Your task to perform on an android device: change alarm snooze length Image 0: 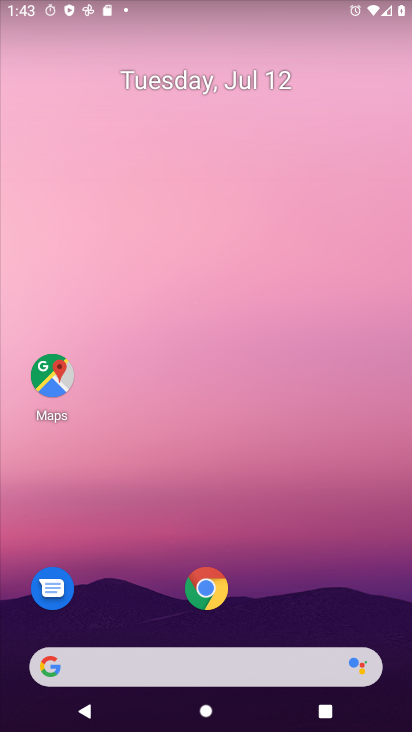
Step 0: drag from (165, 668) to (294, 142)
Your task to perform on an android device: change alarm snooze length Image 1: 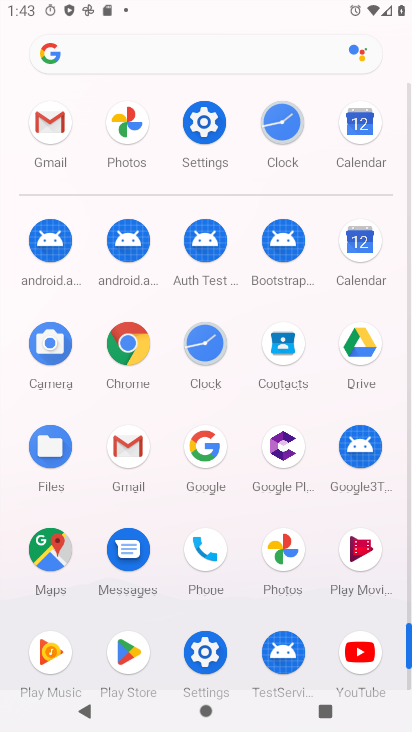
Step 1: click (209, 353)
Your task to perform on an android device: change alarm snooze length Image 2: 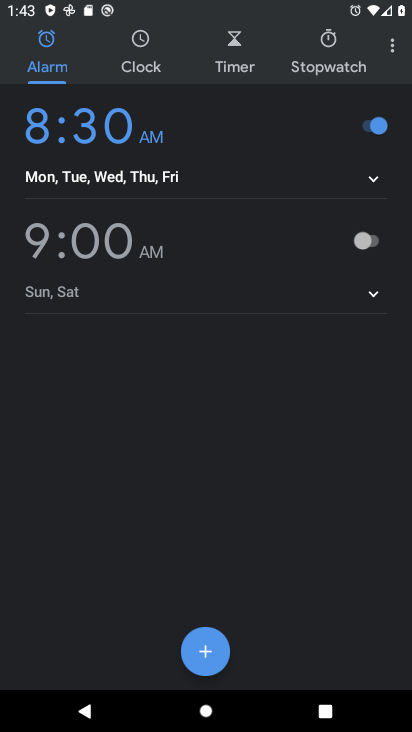
Step 2: click (388, 53)
Your task to perform on an android device: change alarm snooze length Image 3: 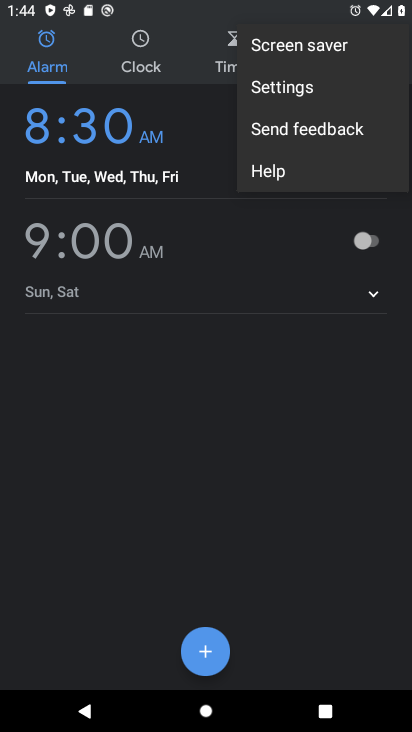
Step 3: click (314, 94)
Your task to perform on an android device: change alarm snooze length Image 4: 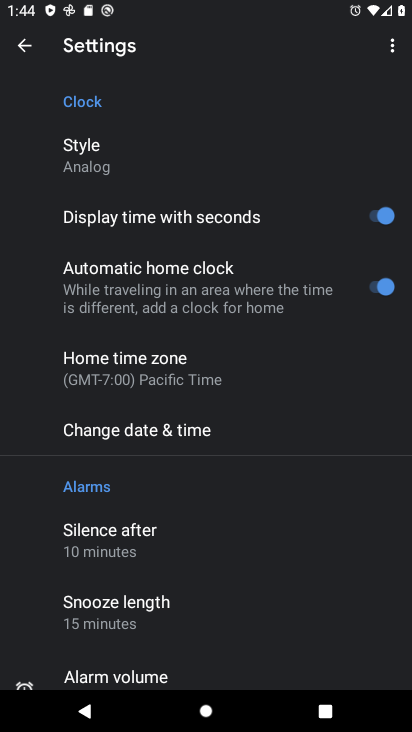
Step 4: click (144, 615)
Your task to perform on an android device: change alarm snooze length Image 5: 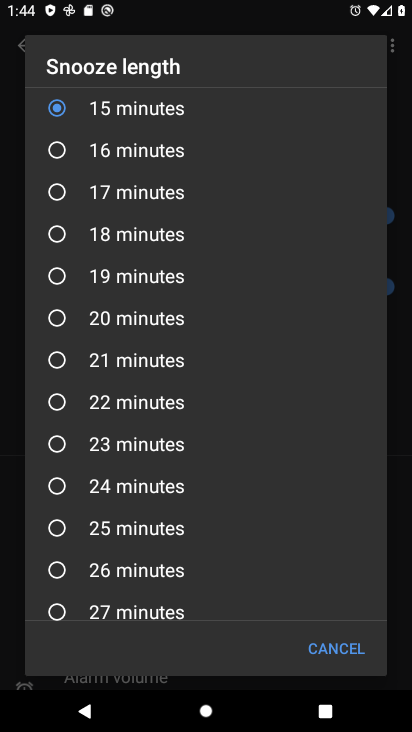
Step 5: click (59, 153)
Your task to perform on an android device: change alarm snooze length Image 6: 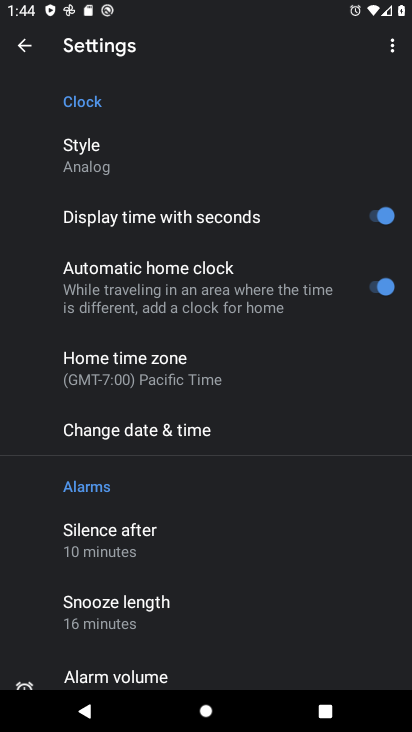
Step 6: task complete